Your task to perform on an android device: turn on wifi Image 0: 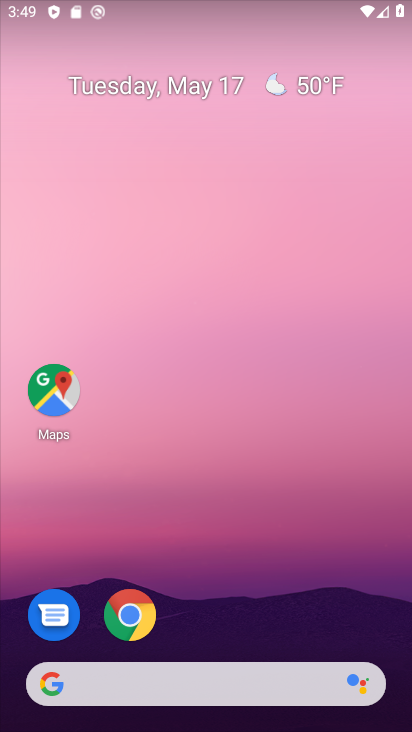
Step 0: drag from (288, 687) to (321, 64)
Your task to perform on an android device: turn on wifi Image 1: 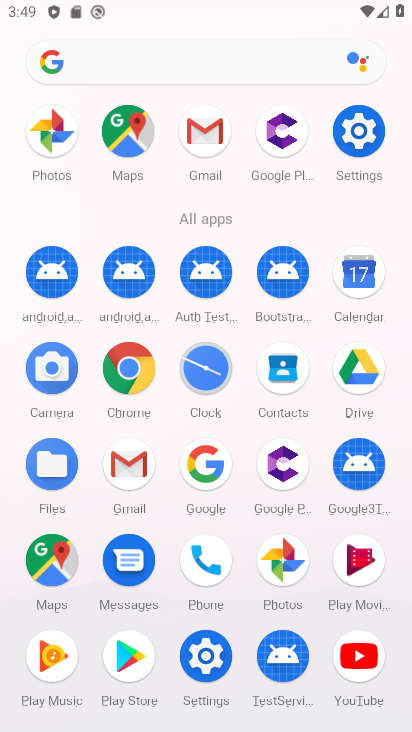
Step 1: click (363, 143)
Your task to perform on an android device: turn on wifi Image 2: 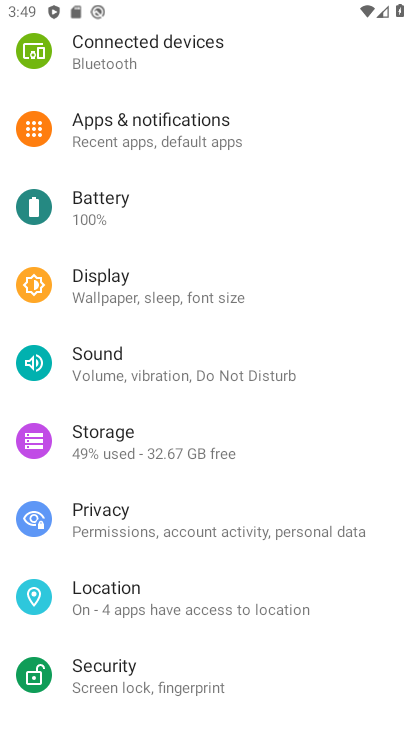
Step 2: drag from (119, 65) to (168, 489)
Your task to perform on an android device: turn on wifi Image 3: 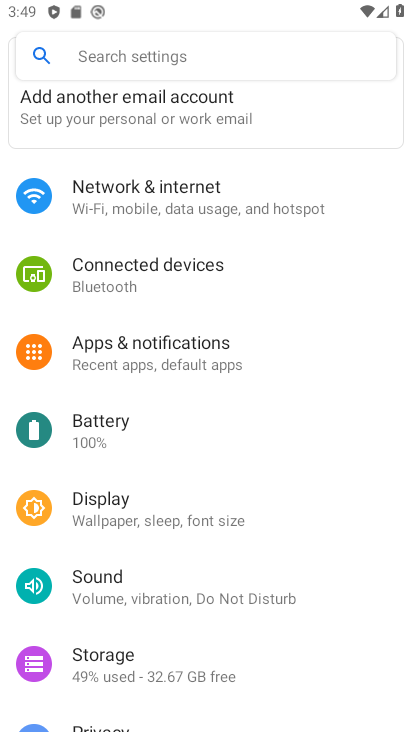
Step 3: click (113, 206)
Your task to perform on an android device: turn on wifi Image 4: 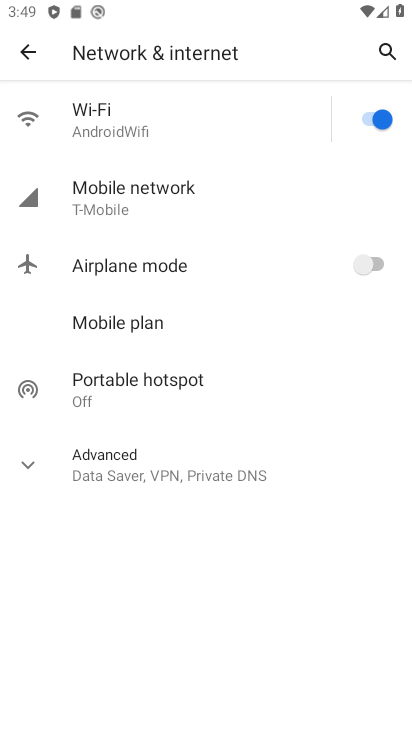
Step 4: click (375, 118)
Your task to perform on an android device: turn on wifi Image 5: 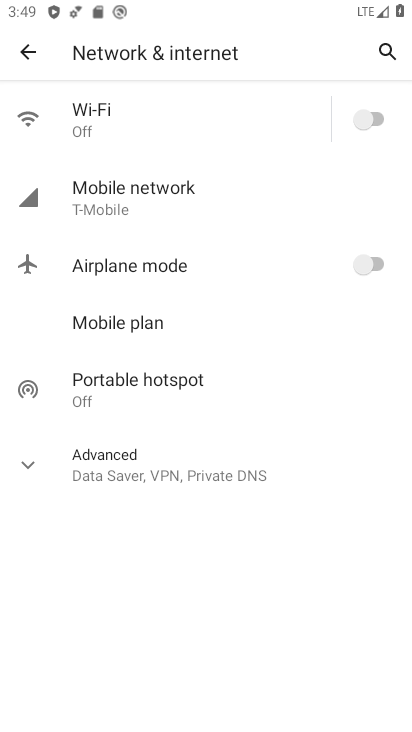
Step 5: click (372, 115)
Your task to perform on an android device: turn on wifi Image 6: 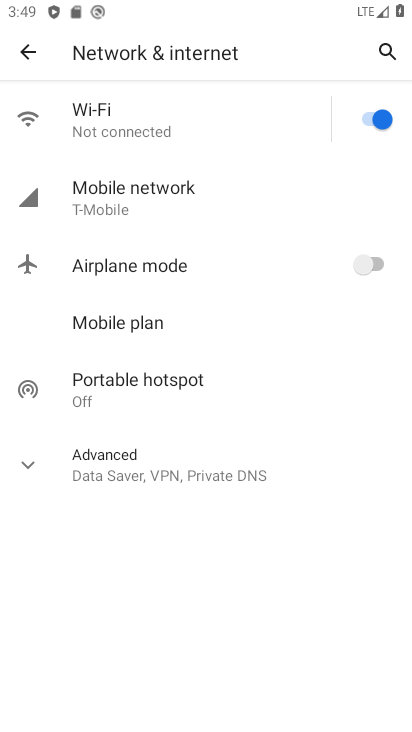
Step 6: task complete